Your task to perform on an android device: Open calendar and show me the fourth week of next month Image 0: 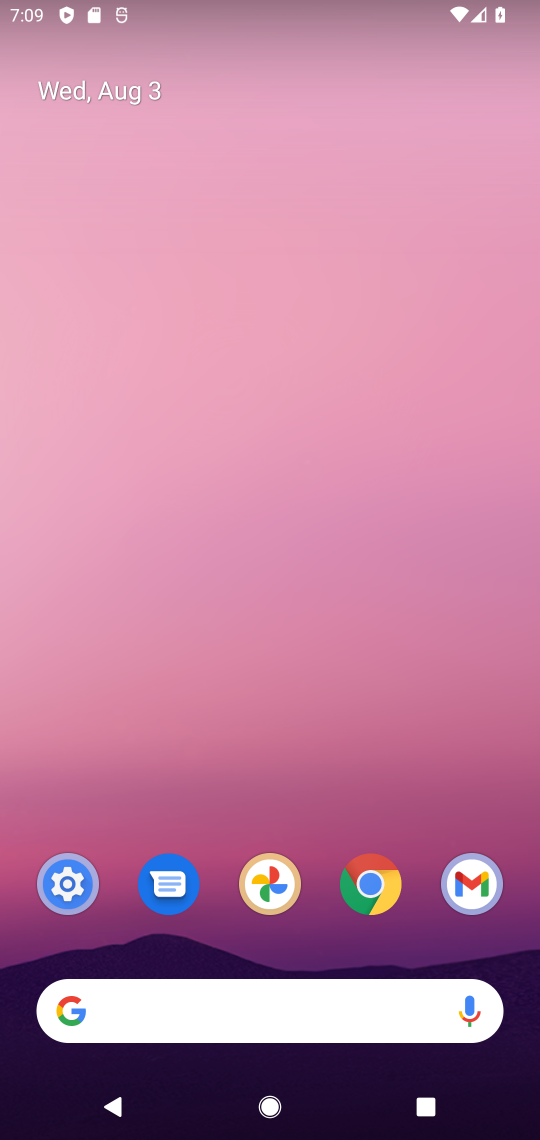
Step 0: drag from (331, 639) to (289, 280)
Your task to perform on an android device: Open calendar and show me the fourth week of next month Image 1: 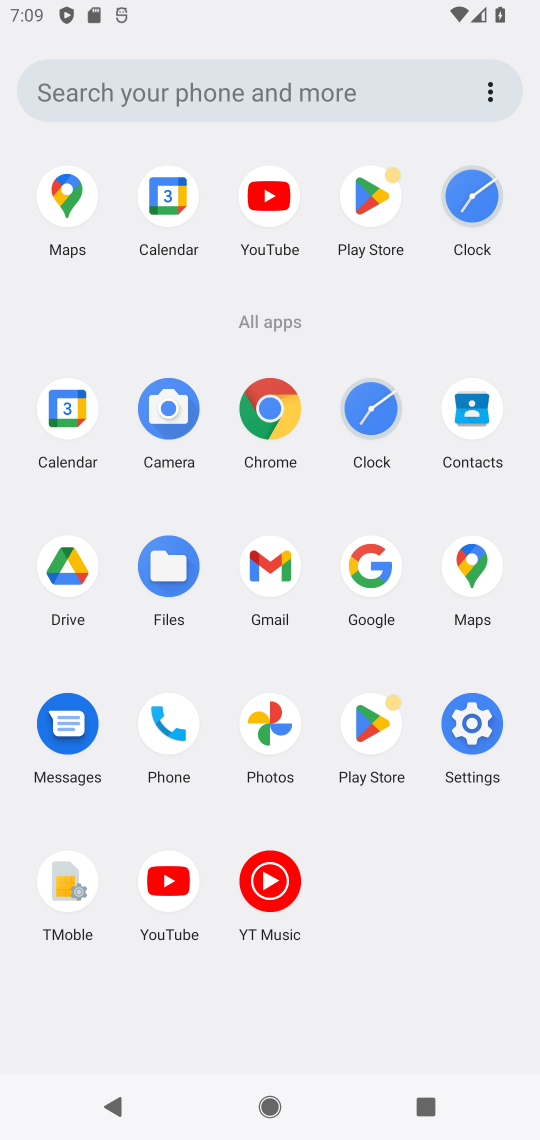
Step 1: click (150, 199)
Your task to perform on an android device: Open calendar and show me the fourth week of next month Image 2: 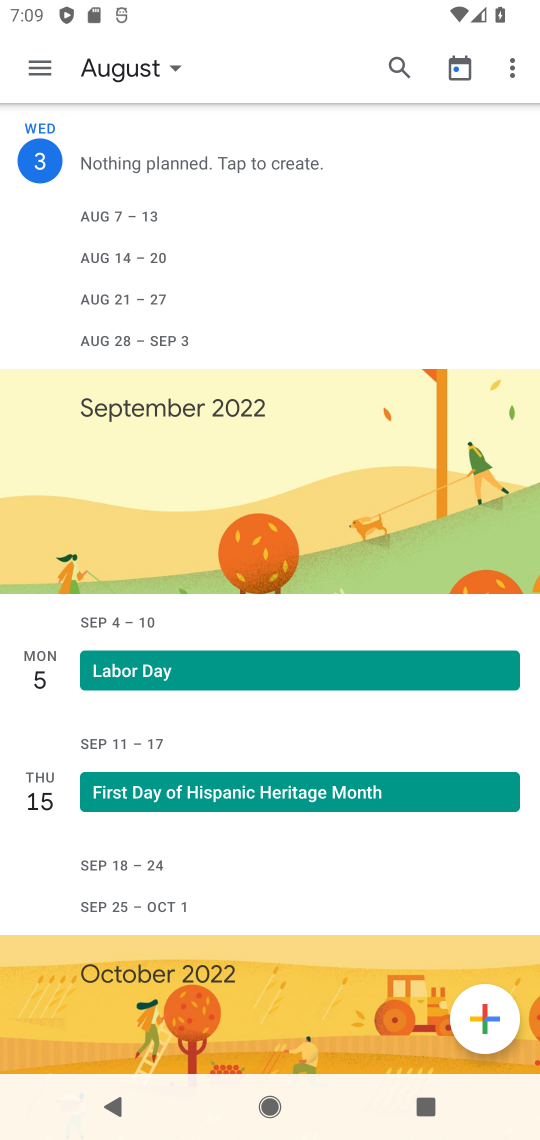
Step 2: task complete